Your task to perform on an android device: open app "Facebook" (install if not already installed) Image 0: 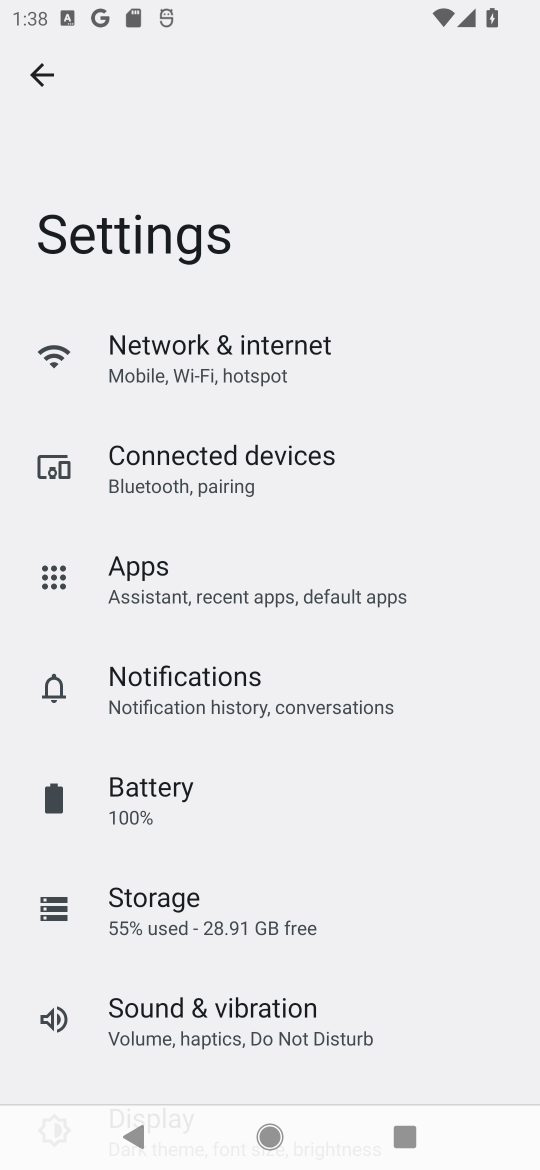
Step 0: press back button
Your task to perform on an android device: open app "Facebook" (install if not already installed) Image 1: 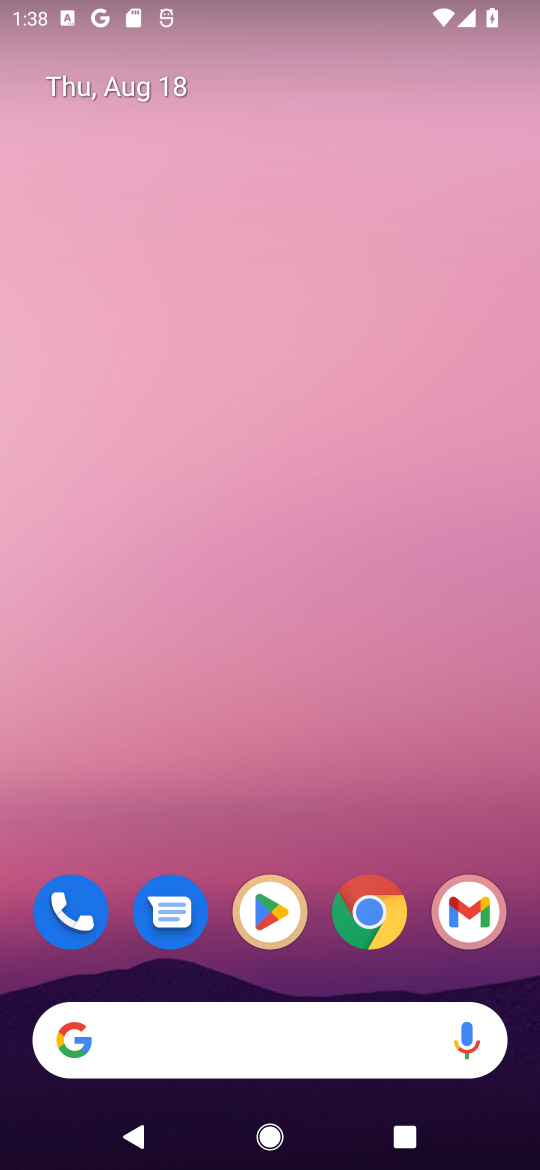
Step 1: click (260, 910)
Your task to perform on an android device: open app "Facebook" (install if not already installed) Image 2: 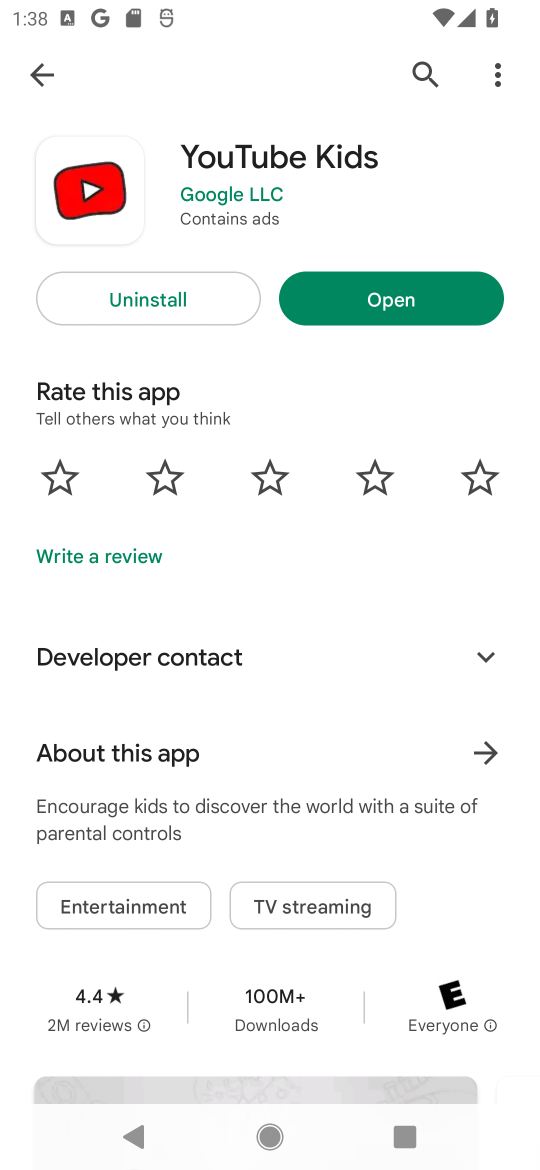
Step 2: click (426, 61)
Your task to perform on an android device: open app "Facebook" (install if not already installed) Image 3: 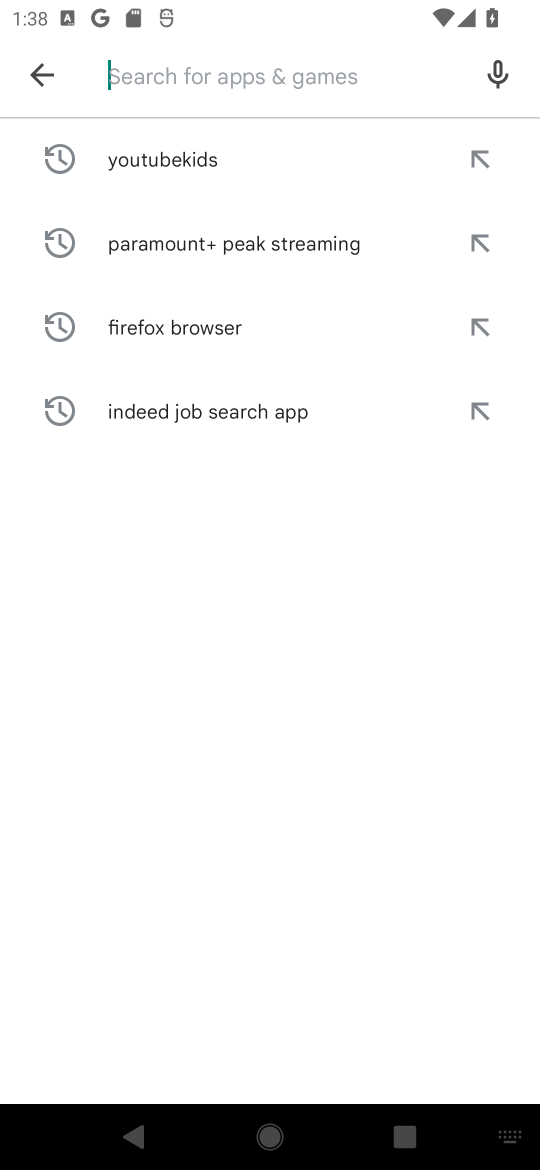
Step 3: click (235, 77)
Your task to perform on an android device: open app "Facebook" (install if not already installed) Image 4: 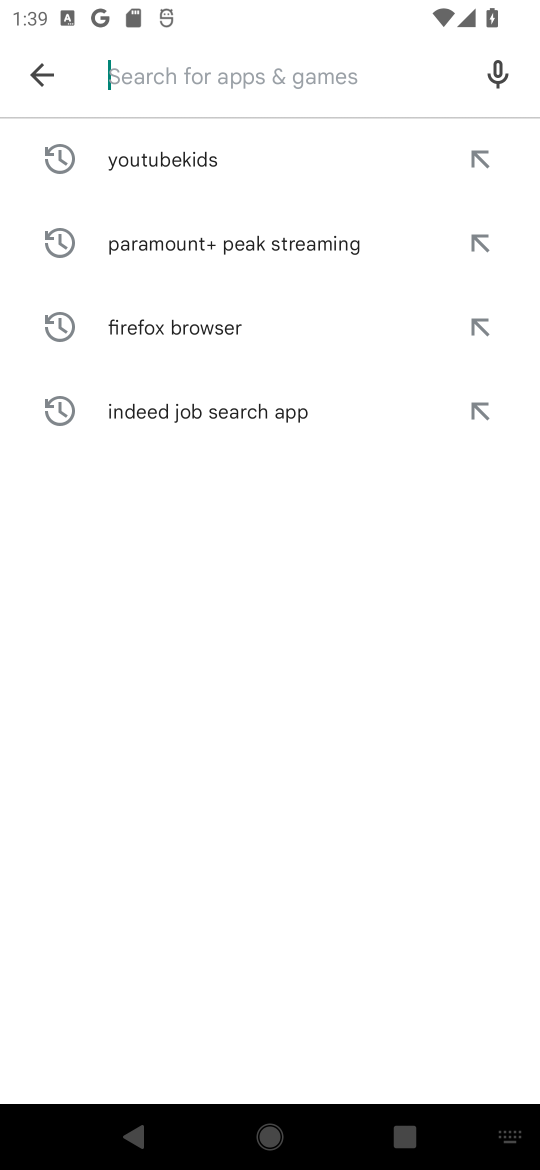
Step 4: type "facebook"
Your task to perform on an android device: open app "Facebook" (install if not already installed) Image 5: 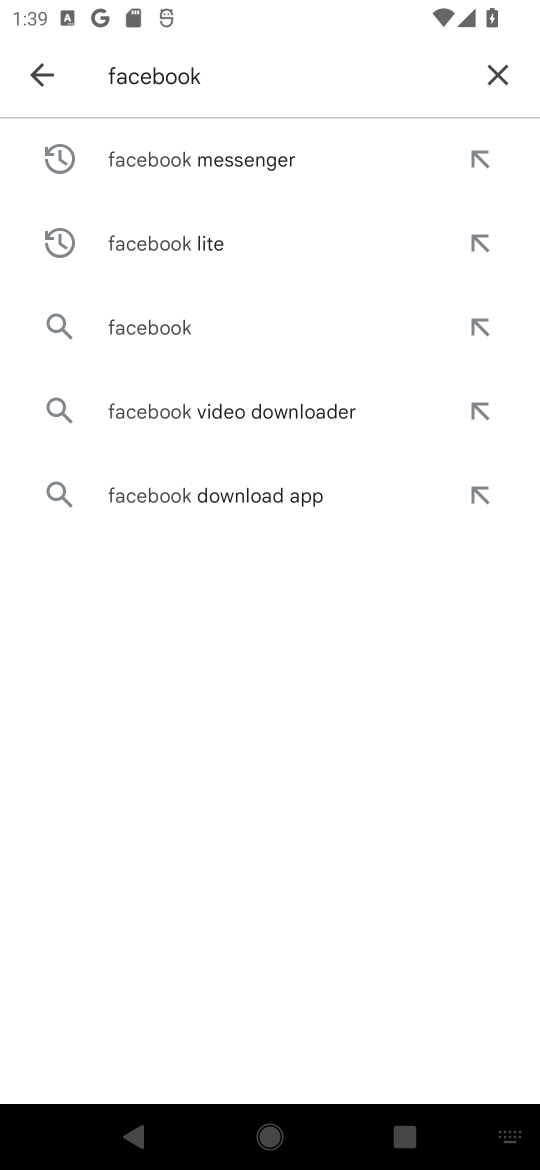
Step 5: click (157, 331)
Your task to perform on an android device: open app "Facebook" (install if not already installed) Image 6: 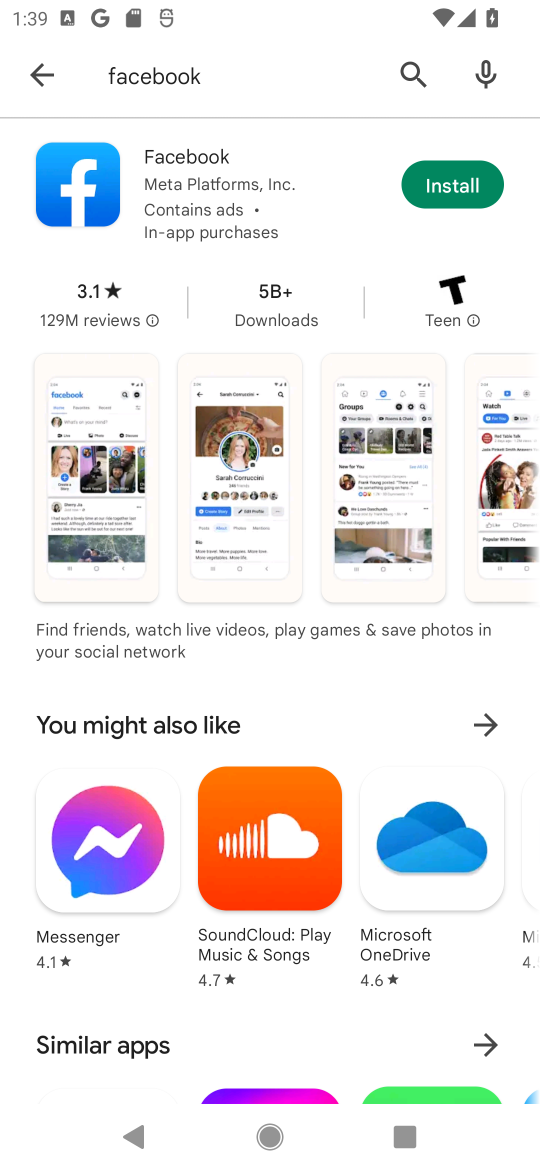
Step 6: click (445, 197)
Your task to perform on an android device: open app "Facebook" (install if not already installed) Image 7: 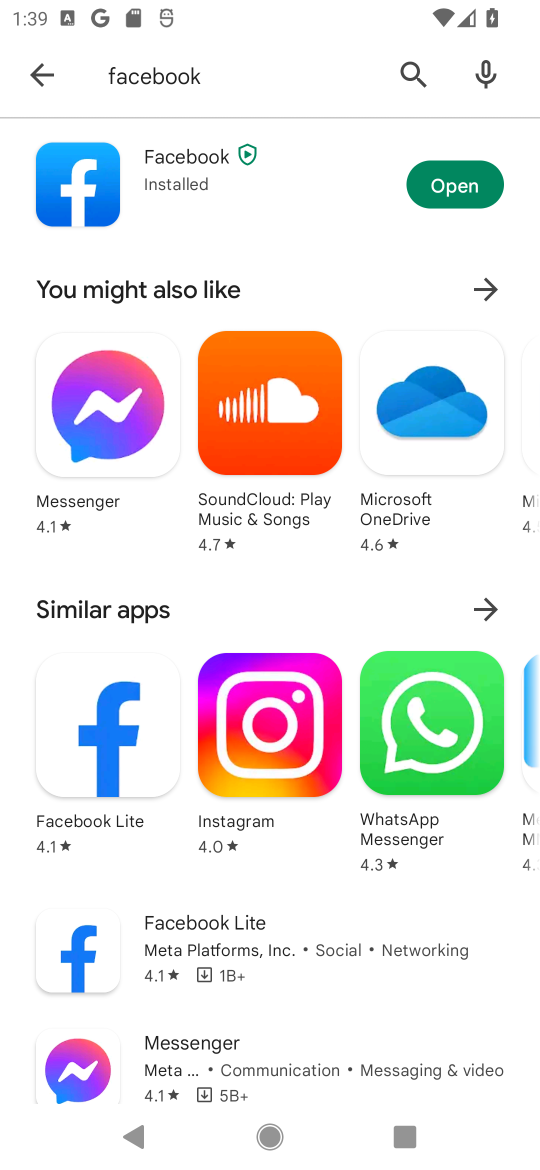
Step 7: click (452, 192)
Your task to perform on an android device: open app "Facebook" (install if not already installed) Image 8: 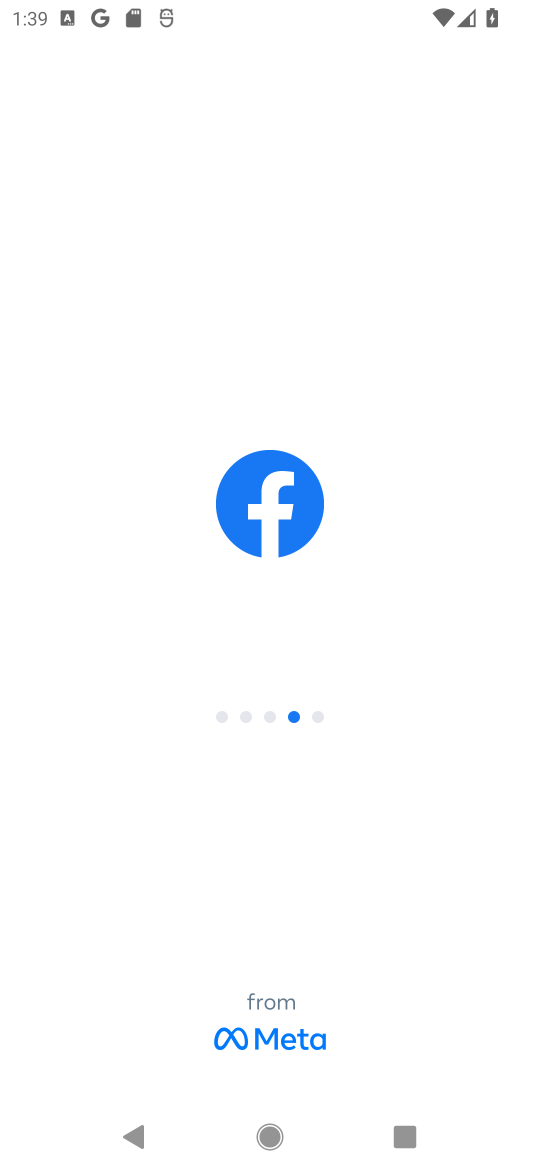
Step 8: task complete